Your task to perform on an android device: What is the news today? Image 0: 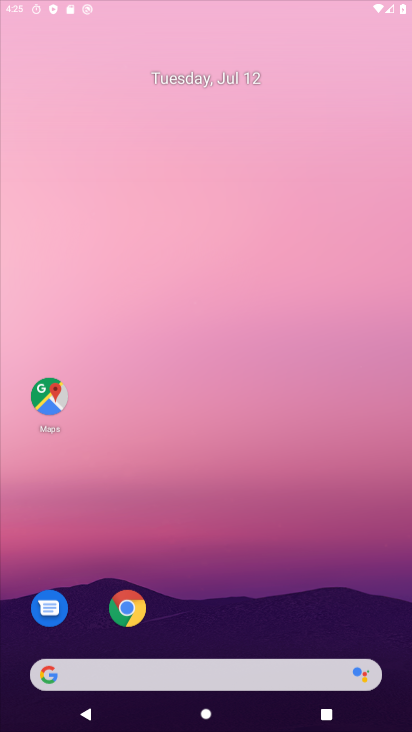
Step 0: drag from (222, 552) to (190, 82)
Your task to perform on an android device: What is the news today? Image 1: 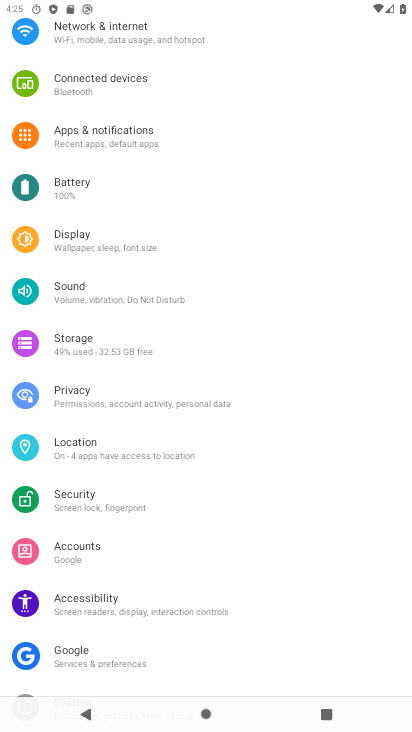
Step 1: press home button
Your task to perform on an android device: What is the news today? Image 2: 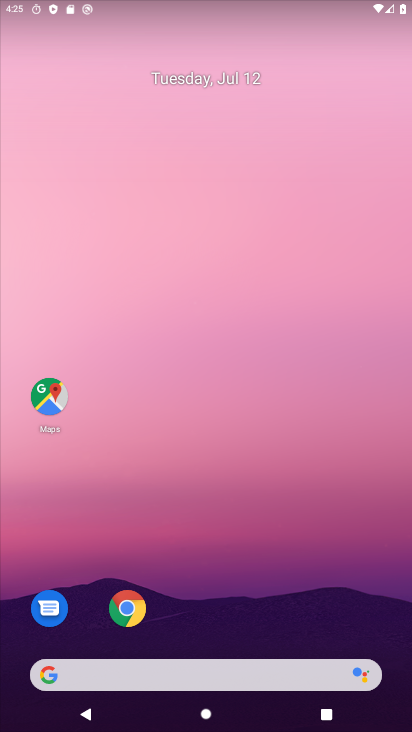
Step 2: click (185, 670)
Your task to perform on an android device: What is the news today? Image 3: 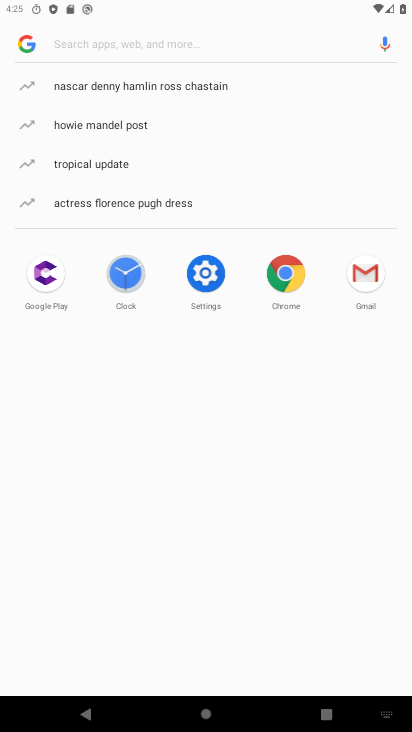
Step 3: click (209, 42)
Your task to perform on an android device: What is the news today? Image 4: 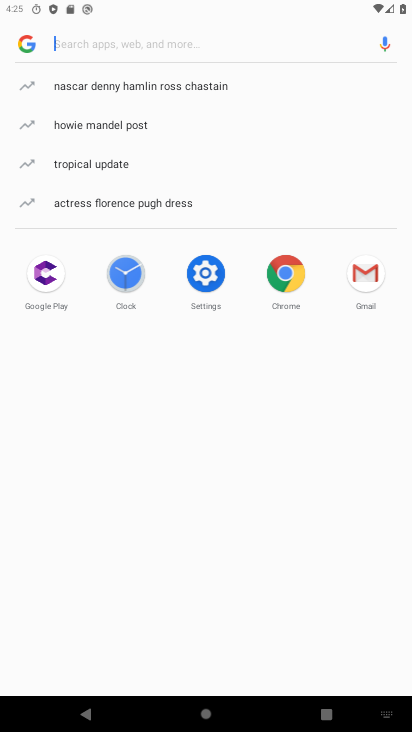
Step 4: type "What is the news today?"
Your task to perform on an android device: What is the news today? Image 5: 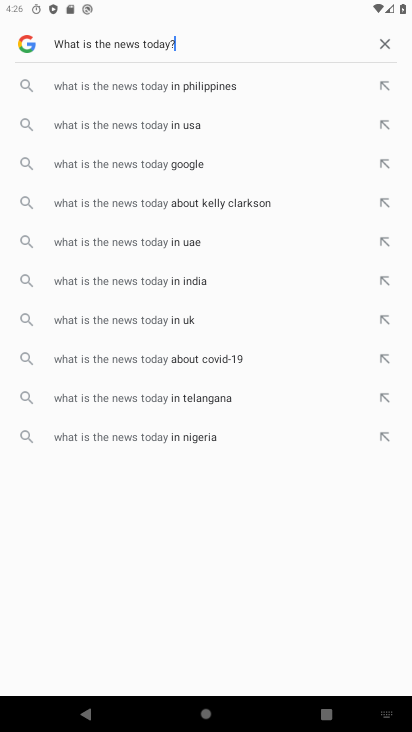
Step 5: click (189, 164)
Your task to perform on an android device: What is the news today? Image 6: 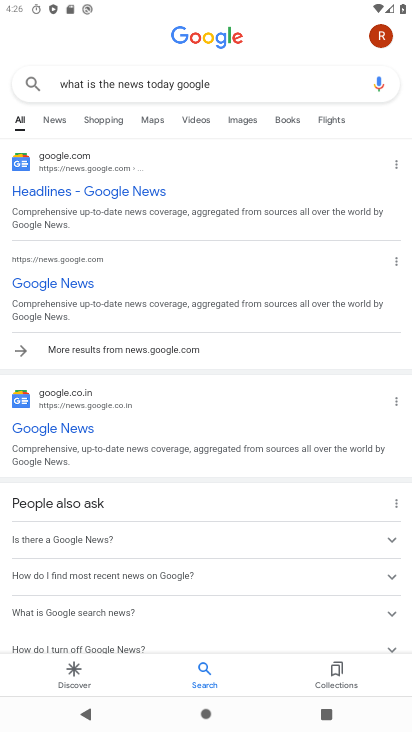
Step 6: click (89, 284)
Your task to perform on an android device: What is the news today? Image 7: 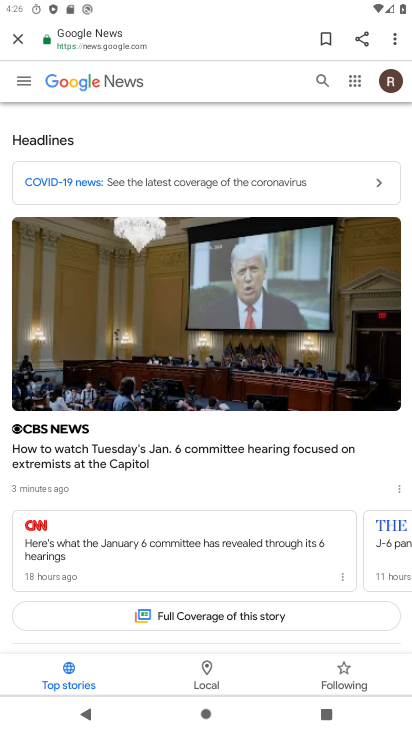
Step 7: task complete